Your task to perform on an android device: Open Google Image 0: 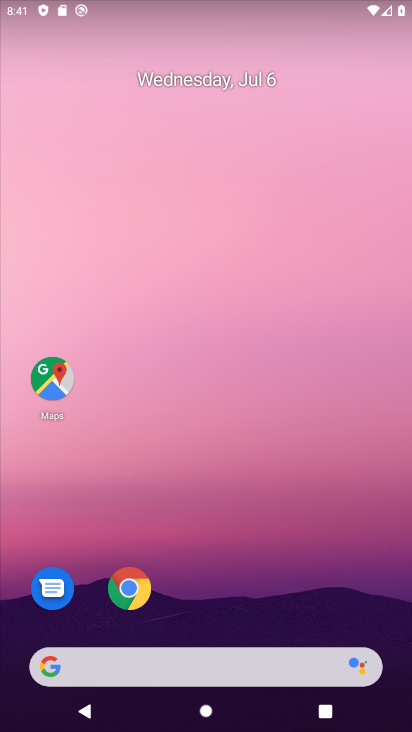
Step 0: drag from (238, 612) to (189, 111)
Your task to perform on an android device: Open Google Image 1: 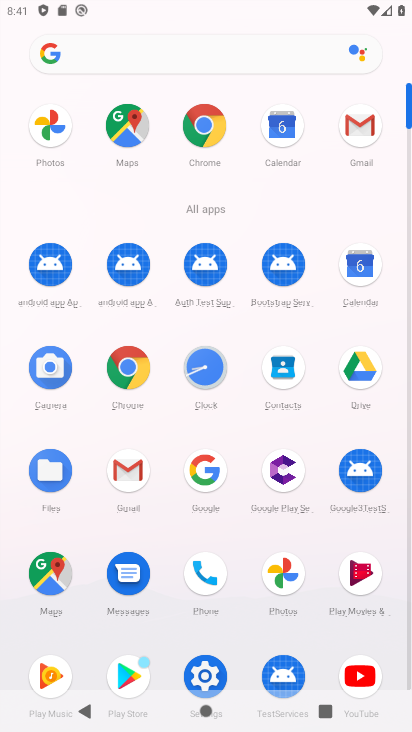
Step 1: click (199, 478)
Your task to perform on an android device: Open Google Image 2: 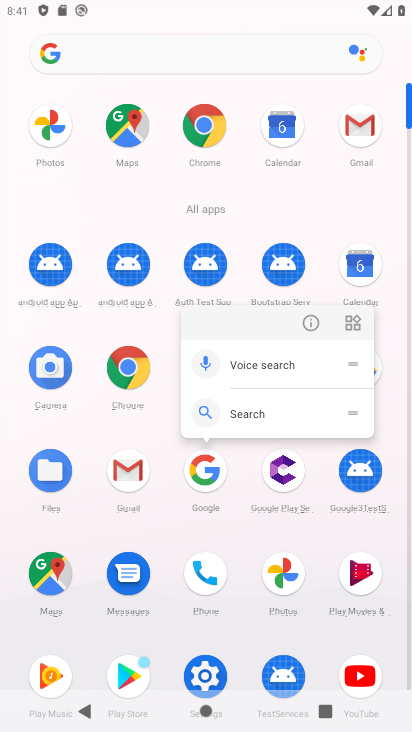
Step 2: click (321, 331)
Your task to perform on an android device: Open Google Image 3: 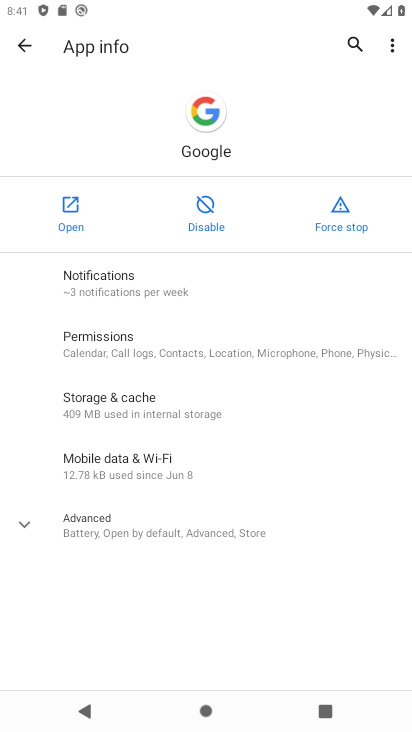
Step 3: click (58, 207)
Your task to perform on an android device: Open Google Image 4: 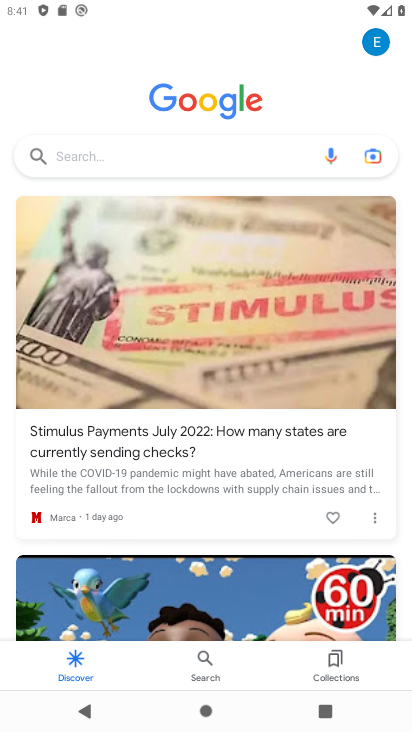
Step 4: task complete